Your task to perform on an android device: Search for hotels in Denver Image 0: 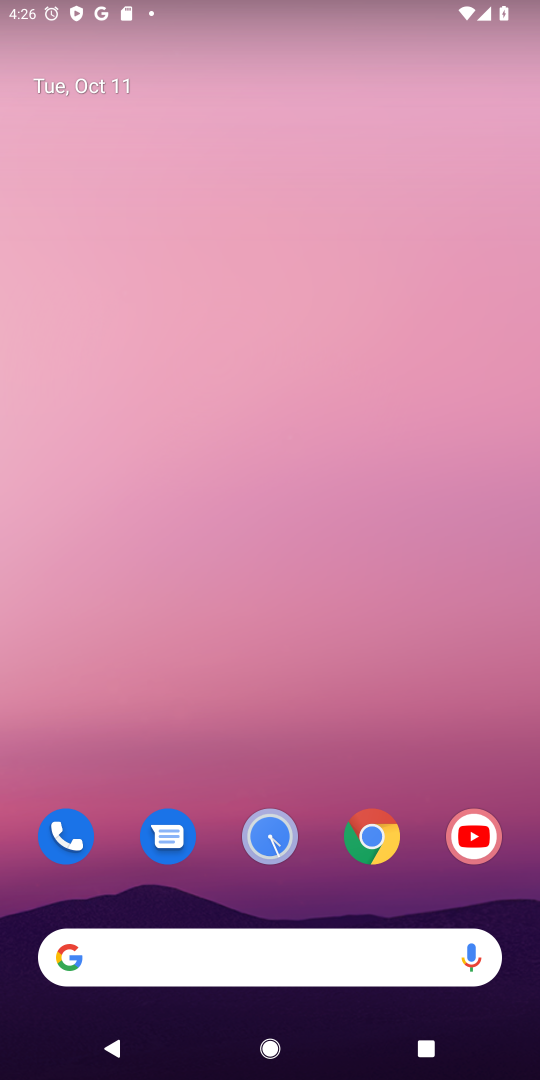
Step 0: click (319, 969)
Your task to perform on an android device: Search for hotels in Denver Image 1: 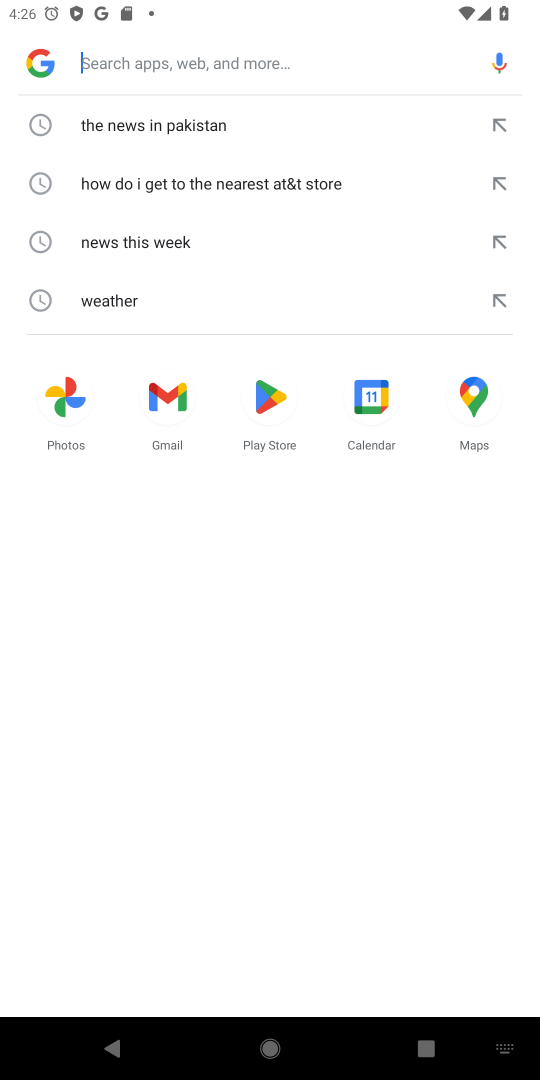
Step 1: type "Search for hotels in Denver"
Your task to perform on an android device: Search for hotels in Denver Image 2: 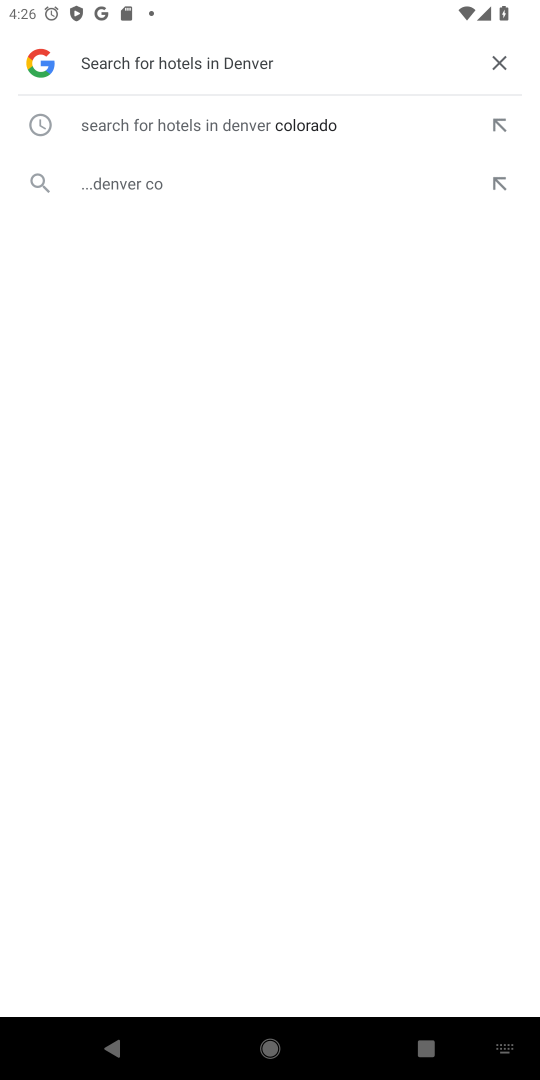
Step 2: click (233, 139)
Your task to perform on an android device: Search for hotels in Denver Image 3: 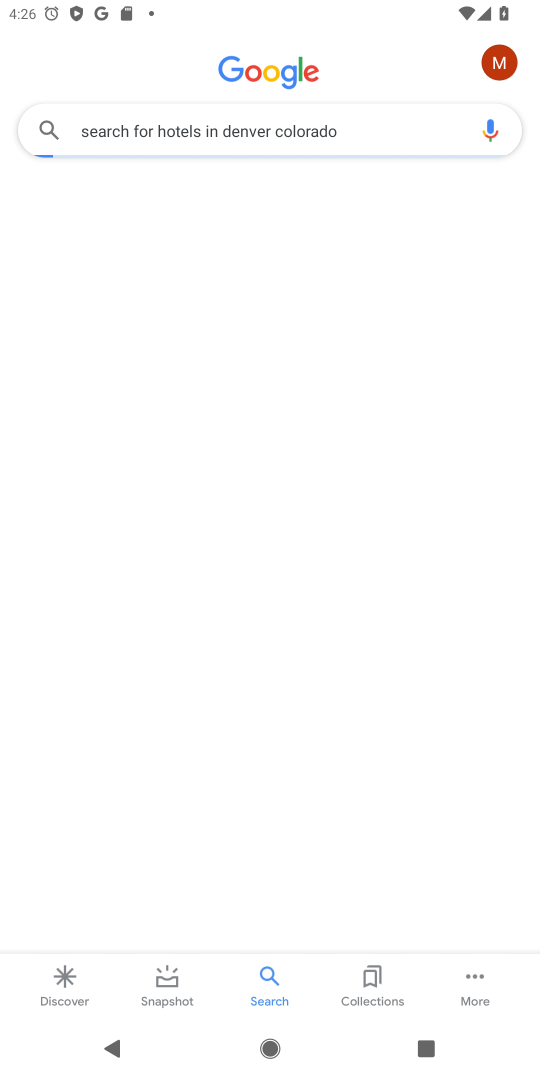
Step 3: task complete